Your task to perform on an android device: install app "Adobe Express: Graphic Design" Image 0: 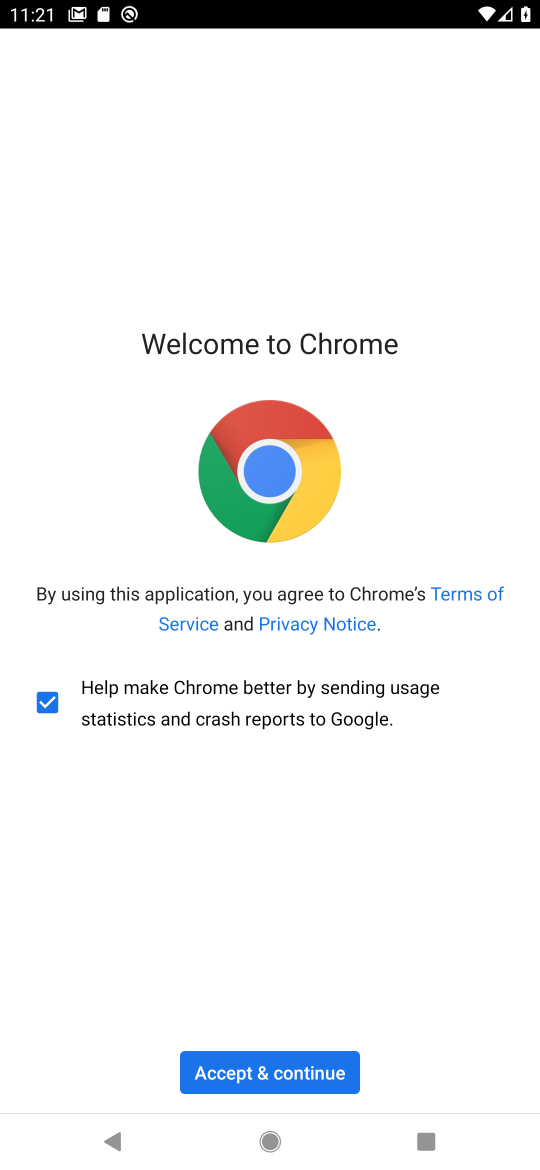
Step 0: press home button
Your task to perform on an android device: install app "Adobe Express: Graphic Design" Image 1: 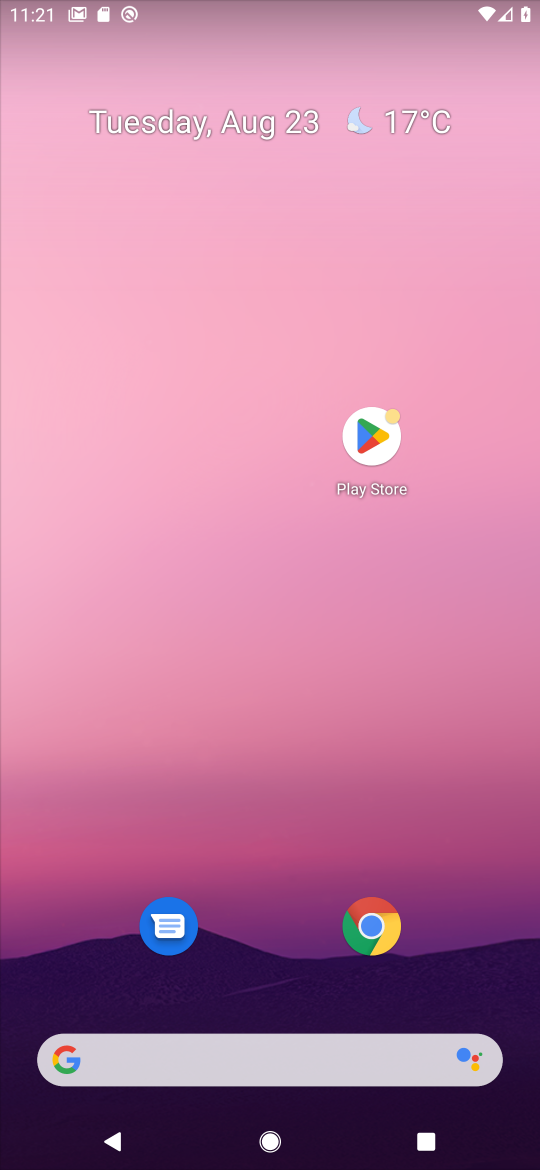
Step 1: click (378, 437)
Your task to perform on an android device: install app "Adobe Express: Graphic Design" Image 2: 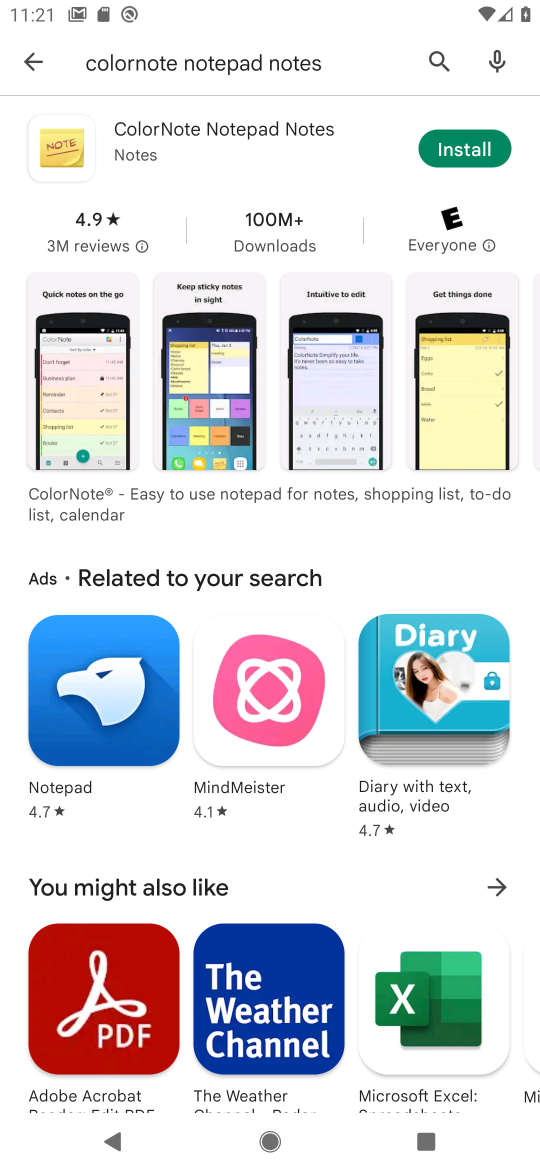
Step 2: click (376, 450)
Your task to perform on an android device: install app "Adobe Express: Graphic Design" Image 3: 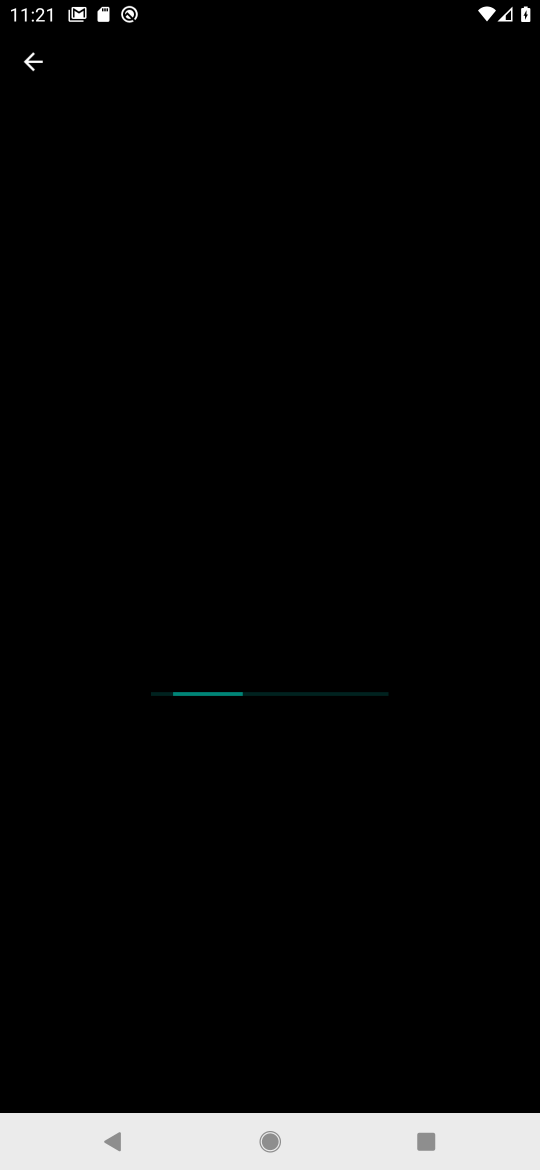
Step 3: click (427, 53)
Your task to perform on an android device: install app "Adobe Express: Graphic Design" Image 4: 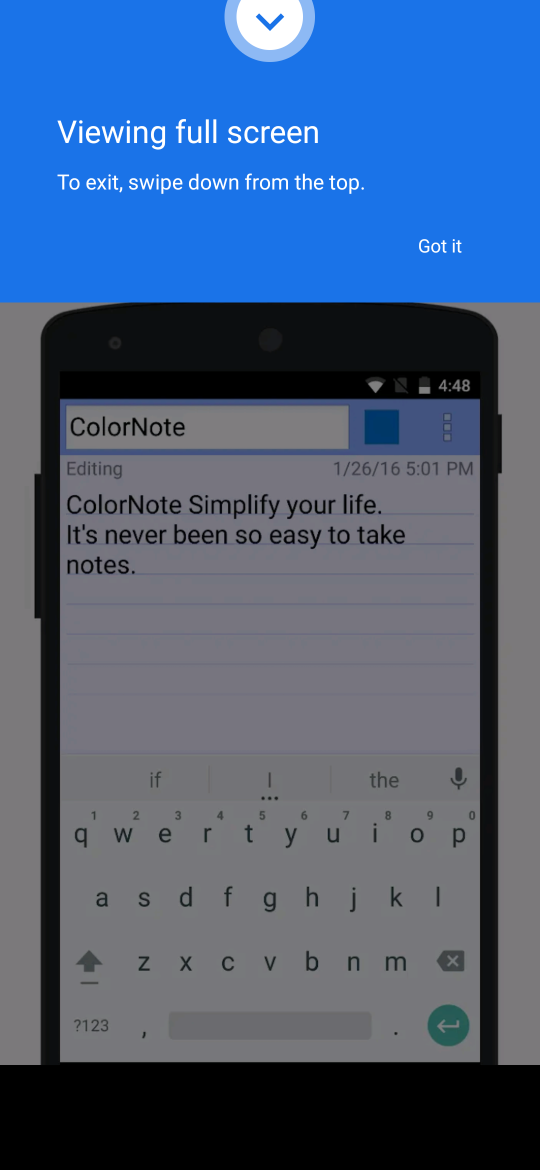
Step 4: press home button
Your task to perform on an android device: install app "Adobe Express: Graphic Design" Image 5: 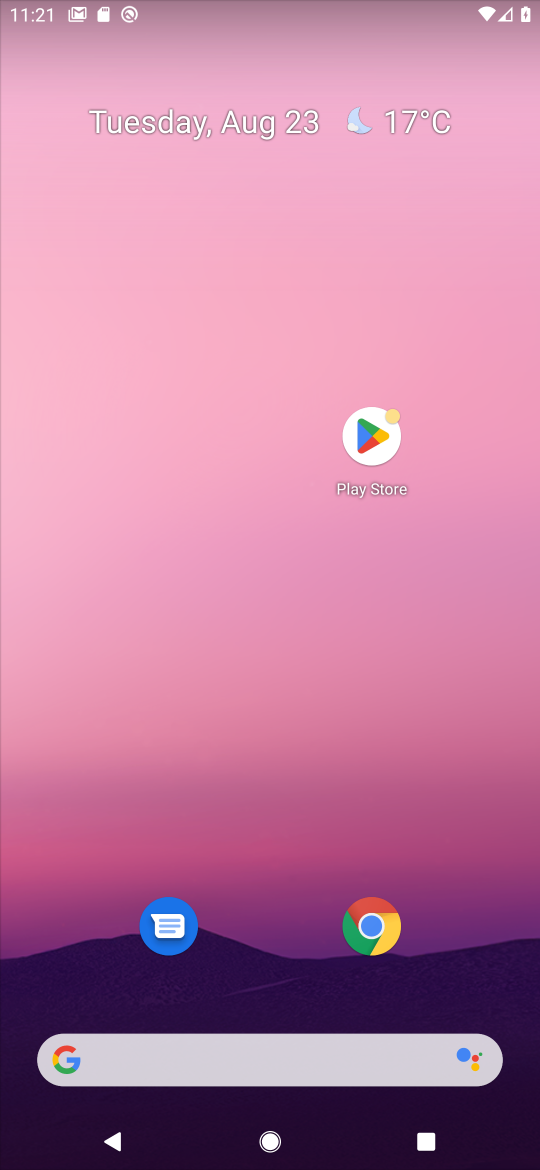
Step 5: click (371, 435)
Your task to perform on an android device: install app "Adobe Express: Graphic Design" Image 6: 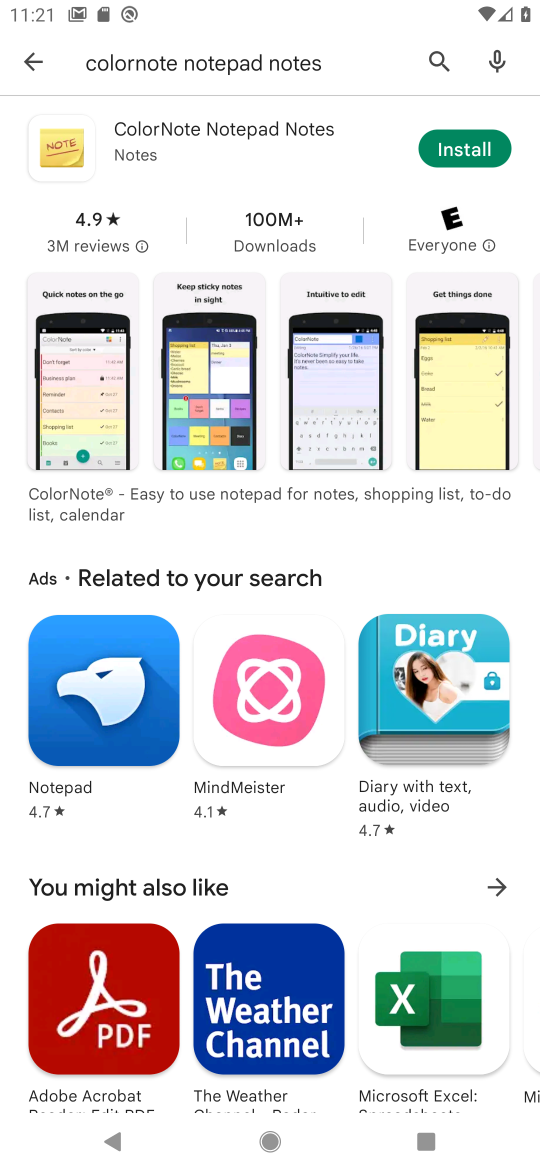
Step 6: click (432, 56)
Your task to perform on an android device: install app "Adobe Express: Graphic Design" Image 7: 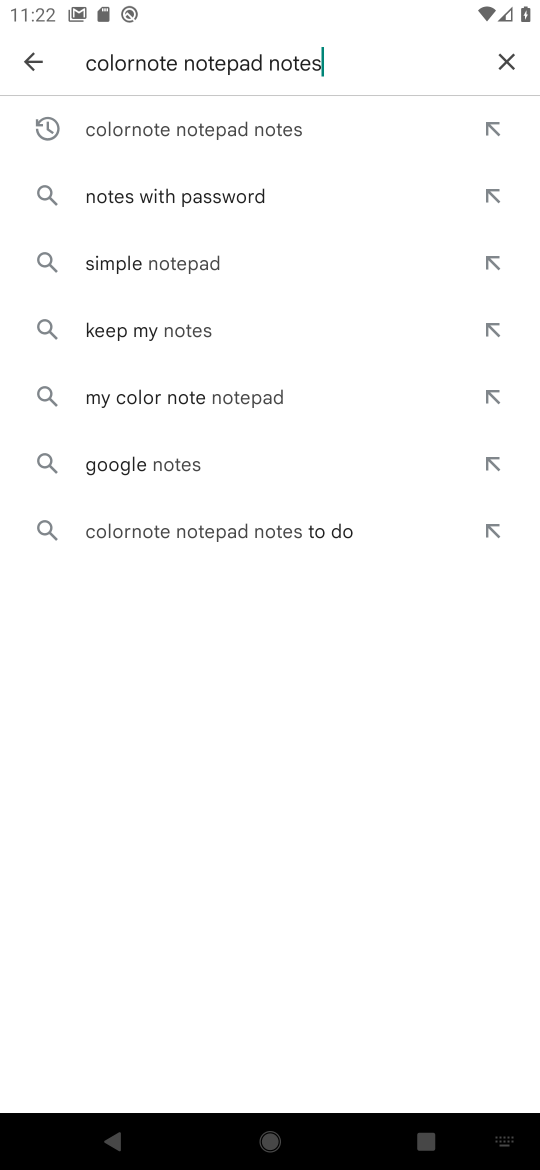
Step 7: click (504, 61)
Your task to perform on an android device: install app "Adobe Express: Graphic Design" Image 8: 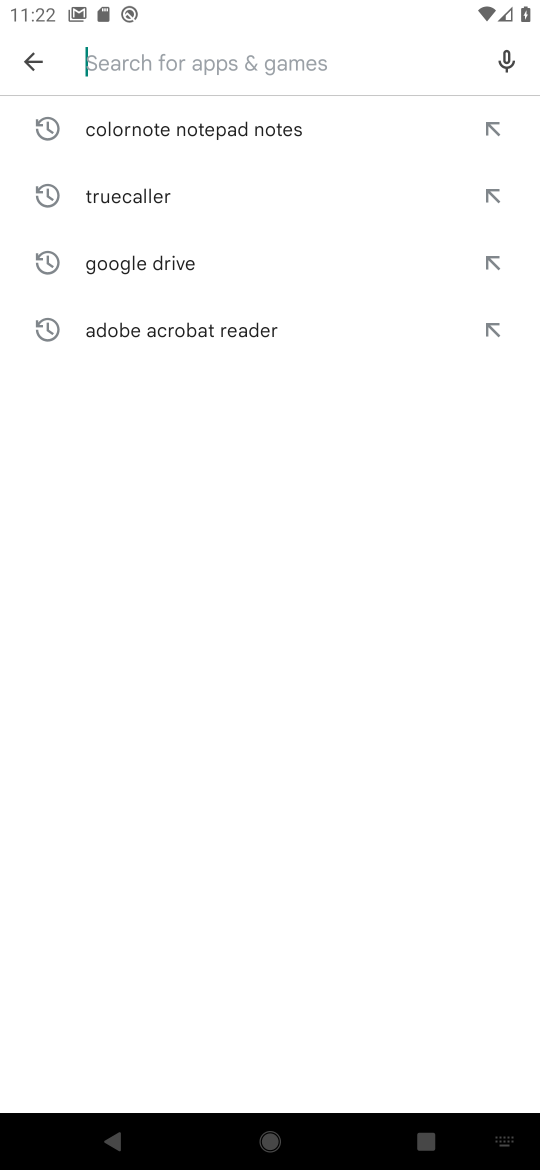
Step 8: type "Adobe Express: Graphic Design"
Your task to perform on an android device: install app "Adobe Express: Graphic Design" Image 9: 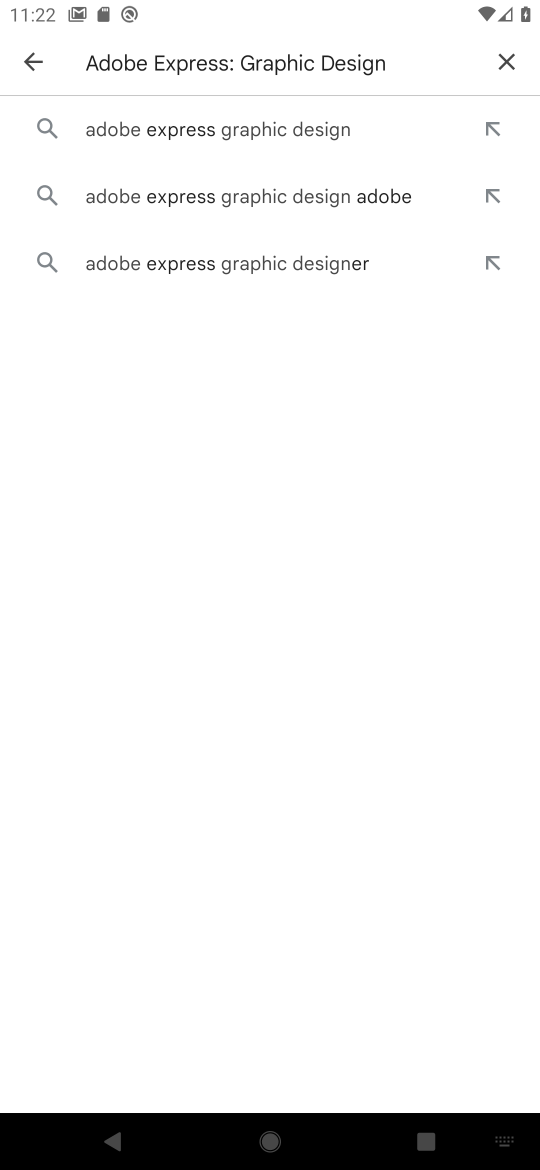
Step 9: click (222, 133)
Your task to perform on an android device: install app "Adobe Express: Graphic Design" Image 10: 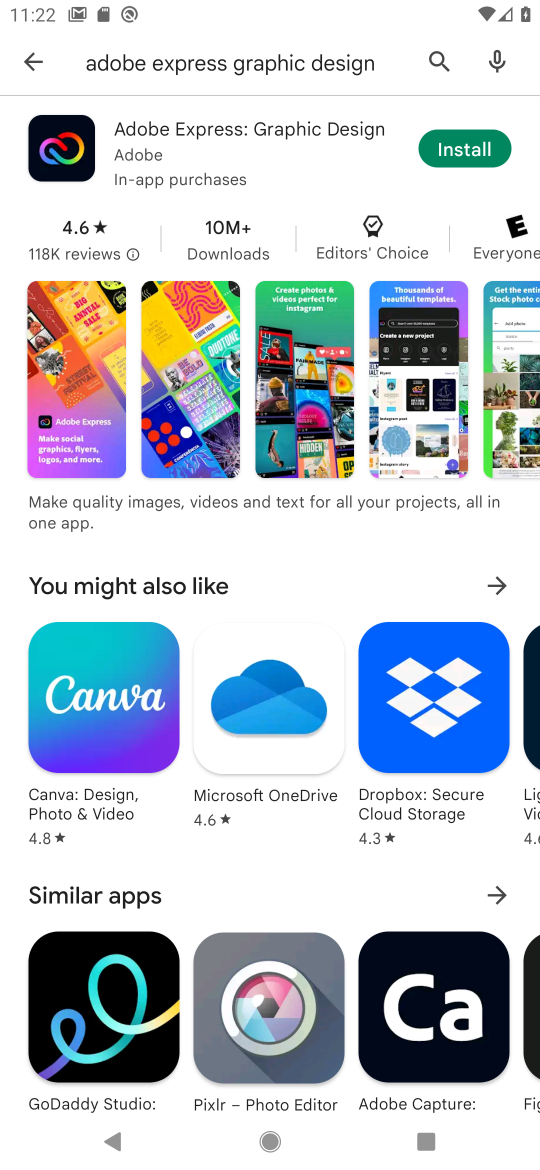
Step 10: click (461, 154)
Your task to perform on an android device: install app "Adobe Express: Graphic Design" Image 11: 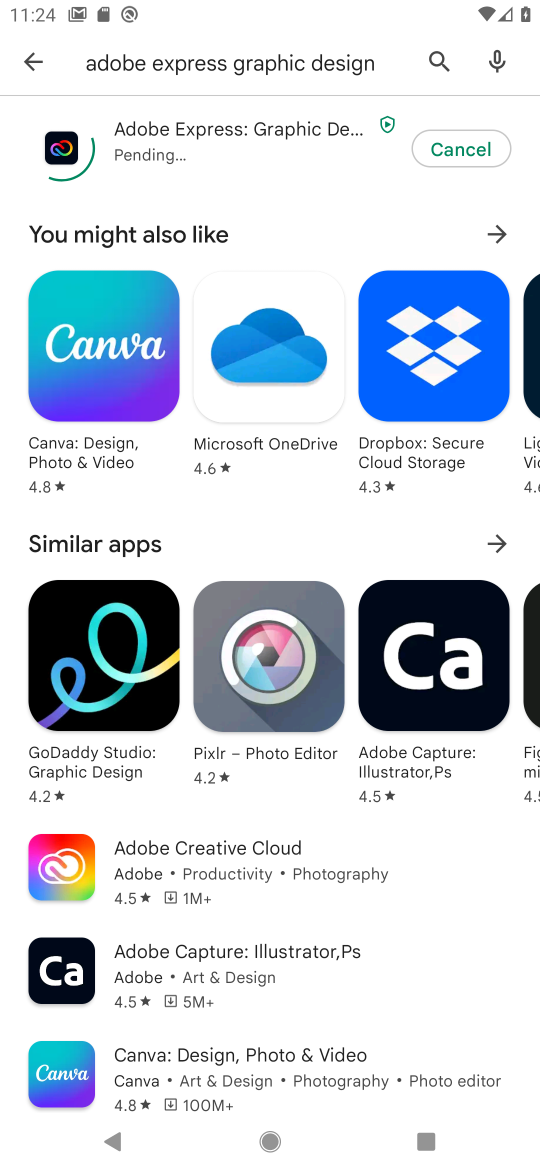
Step 11: task complete